Your task to perform on an android device: Do I have any events today? Image 0: 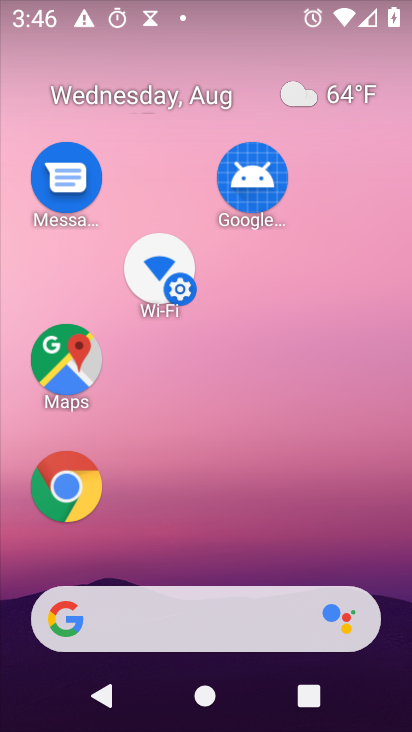
Step 0: press home button
Your task to perform on an android device: Do I have any events today? Image 1: 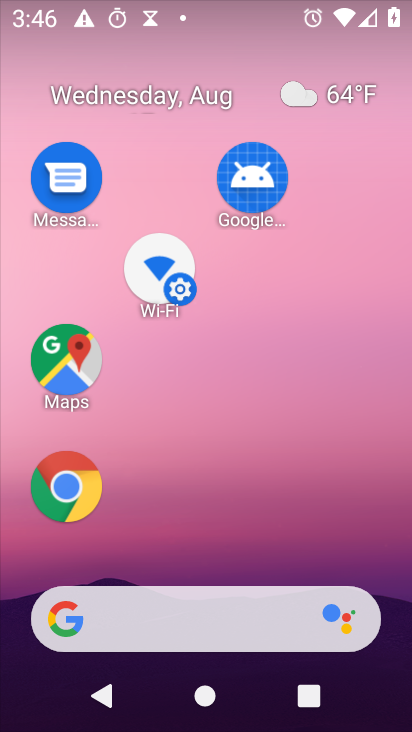
Step 1: drag from (230, 589) to (409, 488)
Your task to perform on an android device: Do I have any events today? Image 2: 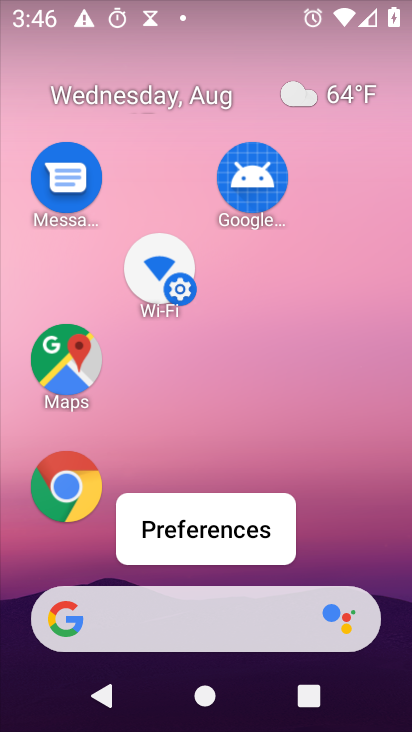
Step 2: drag from (315, 547) to (280, 42)
Your task to perform on an android device: Do I have any events today? Image 3: 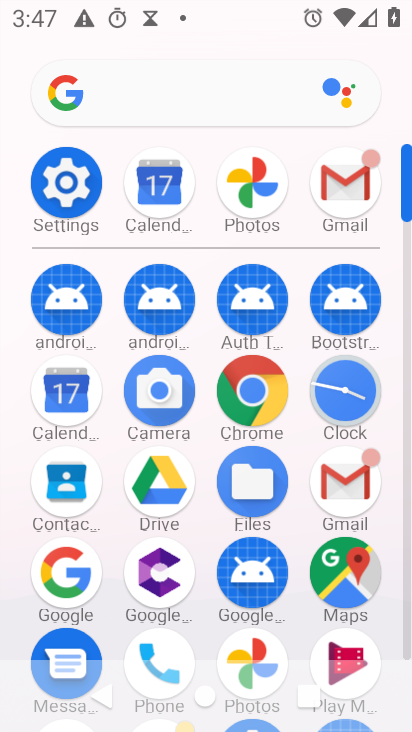
Step 3: click (177, 182)
Your task to perform on an android device: Do I have any events today? Image 4: 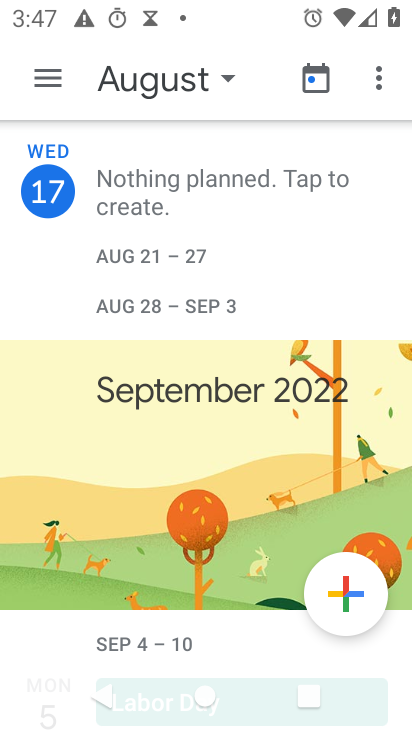
Step 4: task complete